Your task to perform on an android device: toggle javascript in the chrome app Image 0: 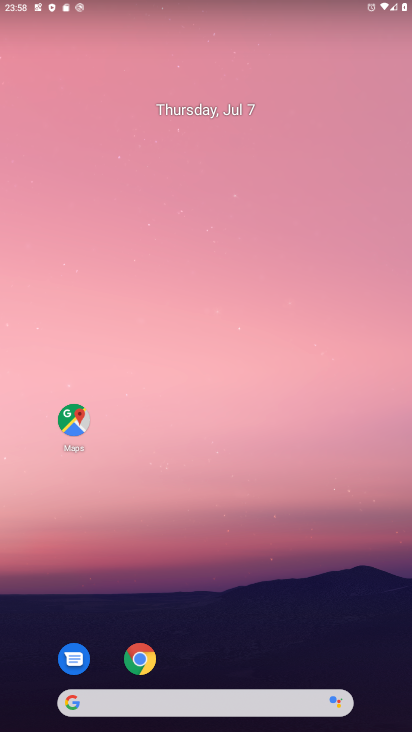
Step 0: click (142, 663)
Your task to perform on an android device: toggle javascript in the chrome app Image 1: 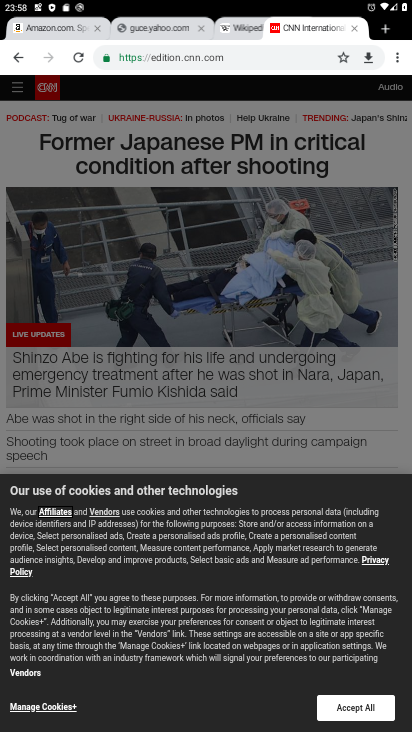
Step 1: click (400, 55)
Your task to perform on an android device: toggle javascript in the chrome app Image 2: 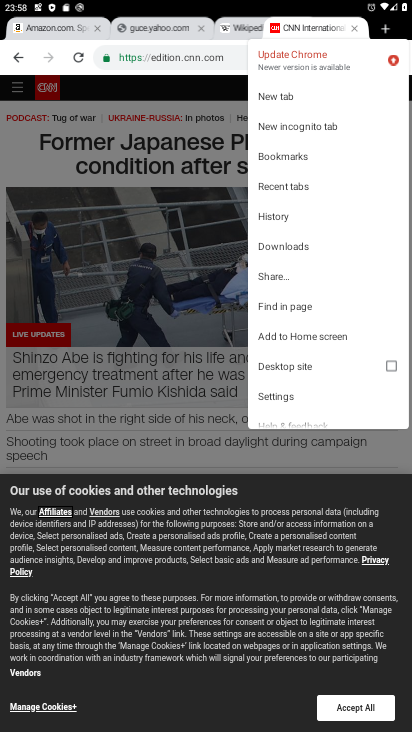
Step 2: click (282, 386)
Your task to perform on an android device: toggle javascript in the chrome app Image 3: 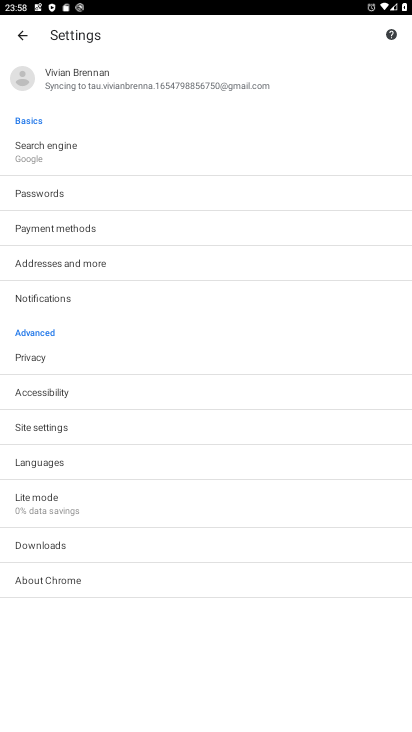
Step 3: click (88, 425)
Your task to perform on an android device: toggle javascript in the chrome app Image 4: 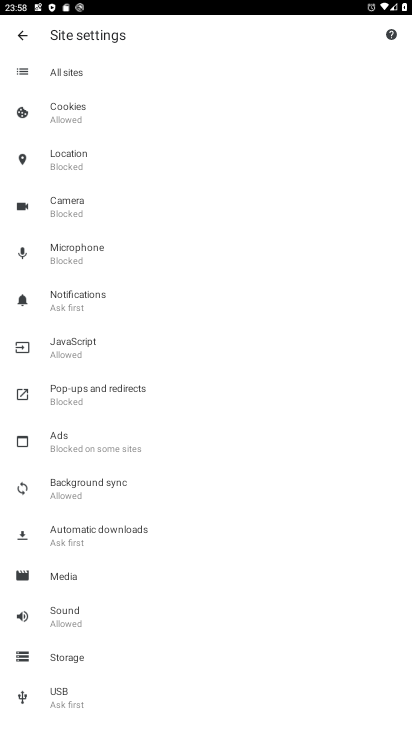
Step 4: click (69, 338)
Your task to perform on an android device: toggle javascript in the chrome app Image 5: 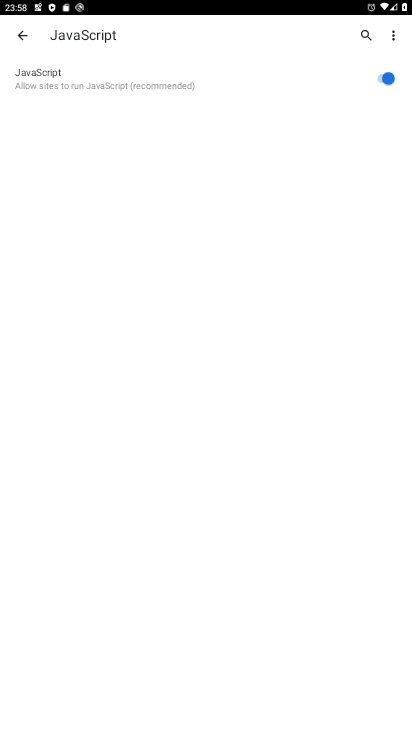
Step 5: click (384, 74)
Your task to perform on an android device: toggle javascript in the chrome app Image 6: 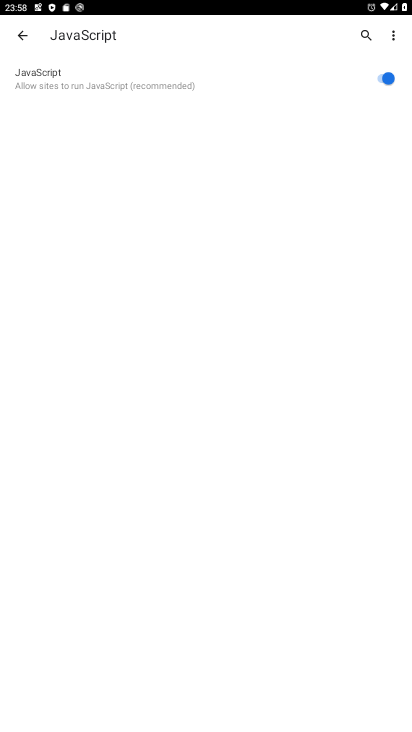
Step 6: click (384, 74)
Your task to perform on an android device: toggle javascript in the chrome app Image 7: 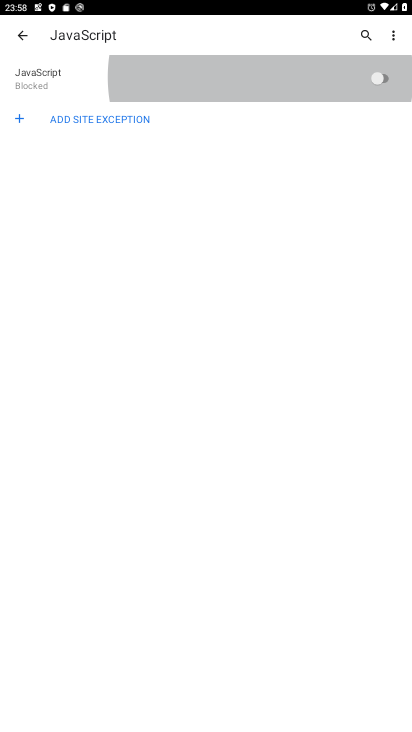
Step 7: click (384, 74)
Your task to perform on an android device: toggle javascript in the chrome app Image 8: 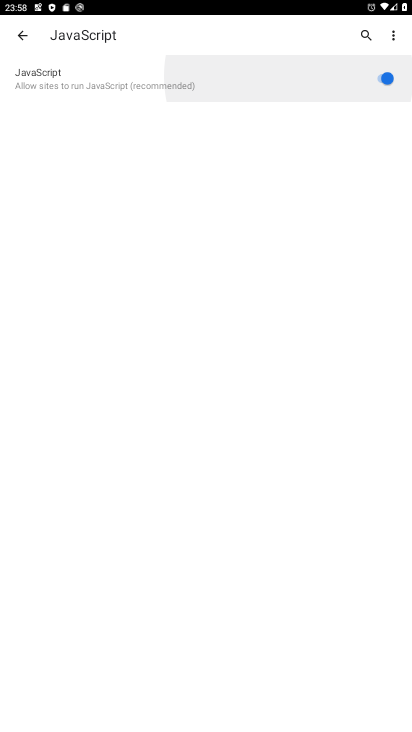
Step 8: click (384, 74)
Your task to perform on an android device: toggle javascript in the chrome app Image 9: 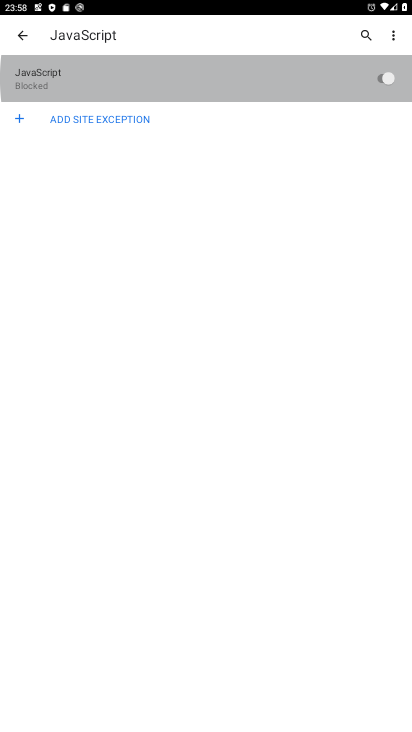
Step 9: click (384, 74)
Your task to perform on an android device: toggle javascript in the chrome app Image 10: 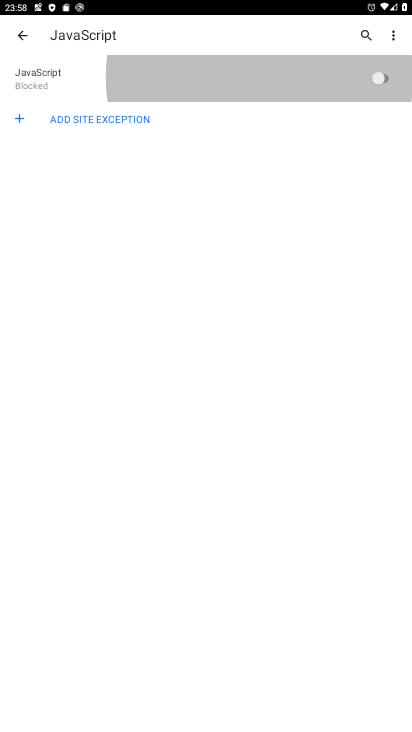
Step 10: click (384, 74)
Your task to perform on an android device: toggle javascript in the chrome app Image 11: 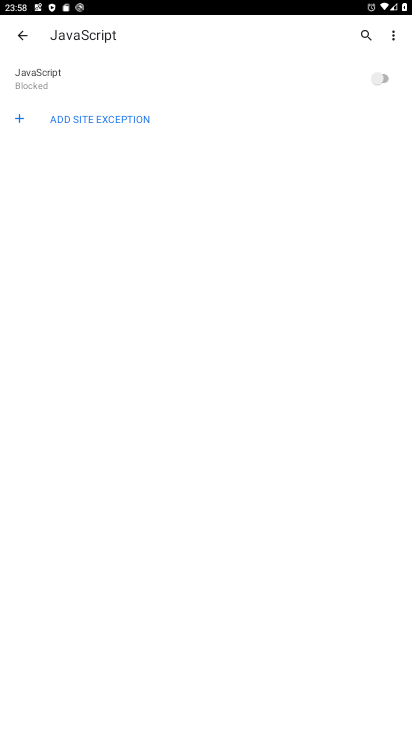
Step 11: click (384, 74)
Your task to perform on an android device: toggle javascript in the chrome app Image 12: 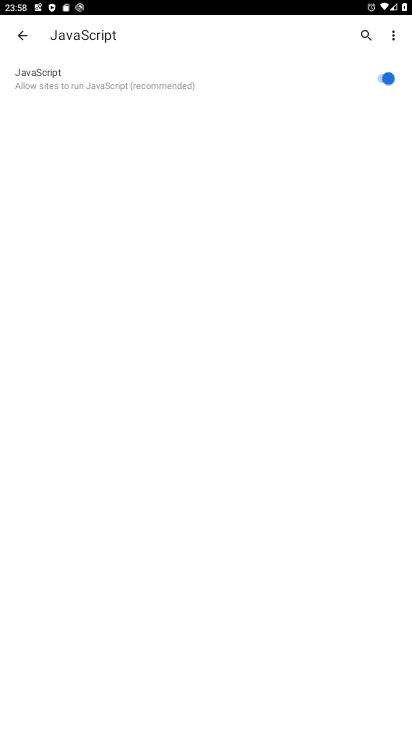
Step 12: task complete